Your task to perform on an android device: open chrome and create a bookmark for the current page Image 0: 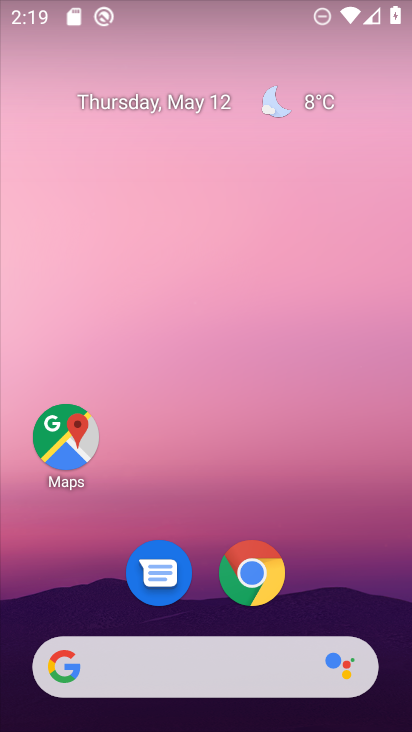
Step 0: drag from (377, 631) to (133, 80)
Your task to perform on an android device: open chrome and create a bookmark for the current page Image 1: 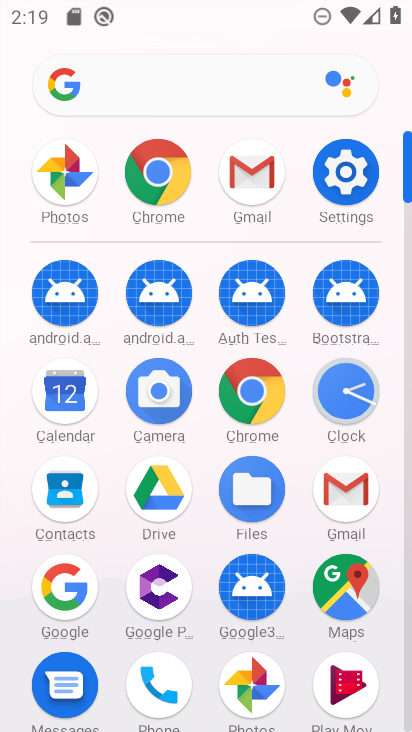
Step 1: click (263, 399)
Your task to perform on an android device: open chrome and create a bookmark for the current page Image 2: 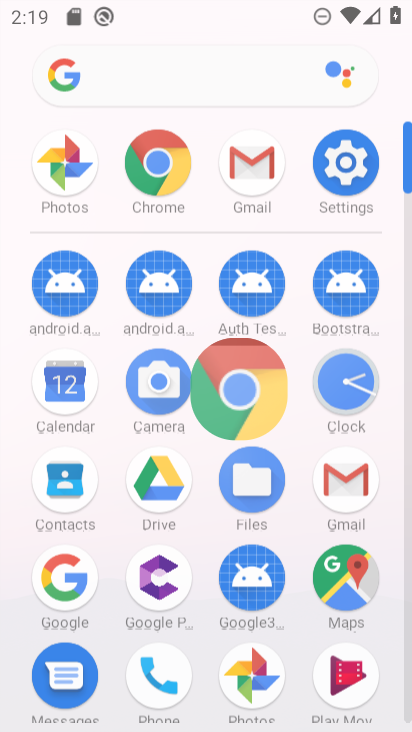
Step 2: click (222, 386)
Your task to perform on an android device: open chrome and create a bookmark for the current page Image 3: 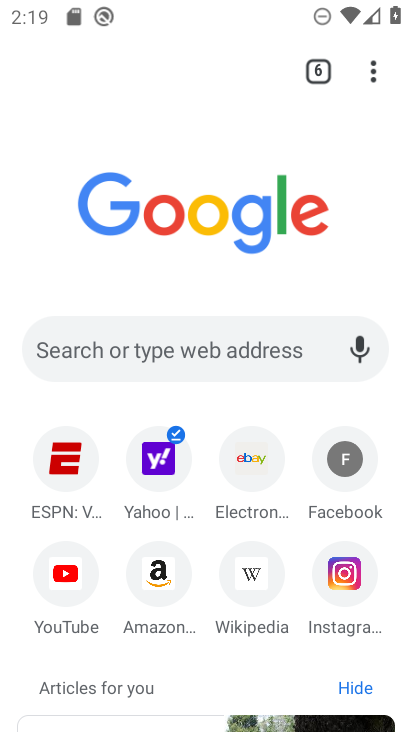
Step 3: drag from (369, 61) to (89, 262)
Your task to perform on an android device: open chrome and create a bookmark for the current page Image 4: 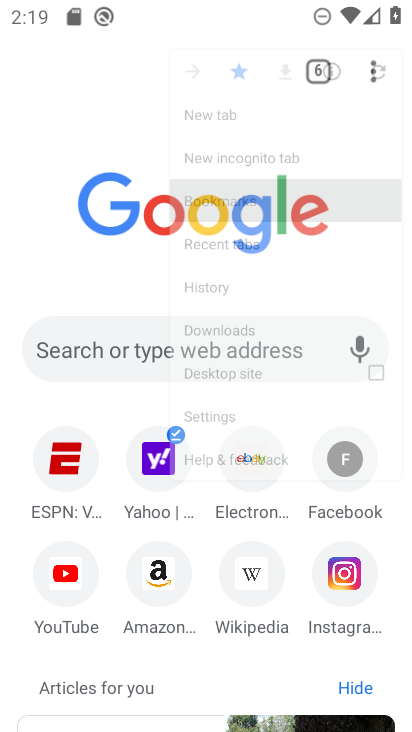
Step 4: click (82, 264)
Your task to perform on an android device: open chrome and create a bookmark for the current page Image 5: 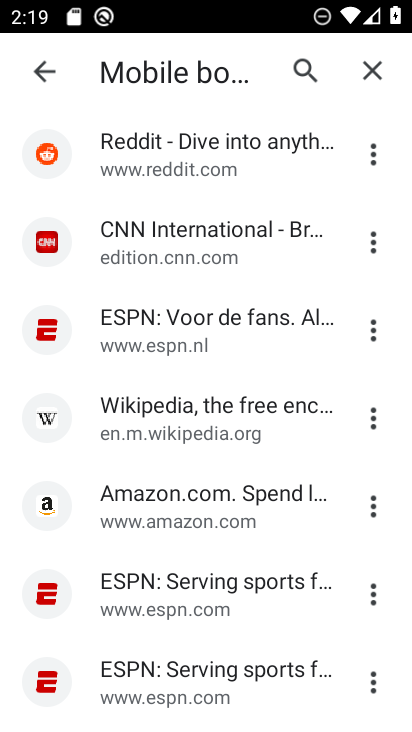
Step 5: click (38, 64)
Your task to perform on an android device: open chrome and create a bookmark for the current page Image 6: 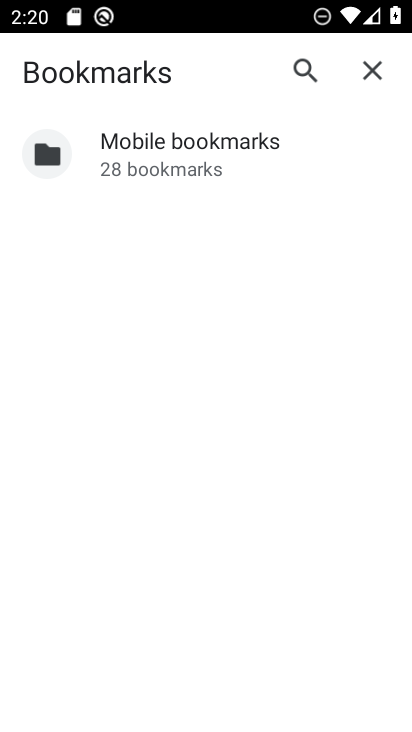
Step 6: click (366, 67)
Your task to perform on an android device: open chrome and create a bookmark for the current page Image 7: 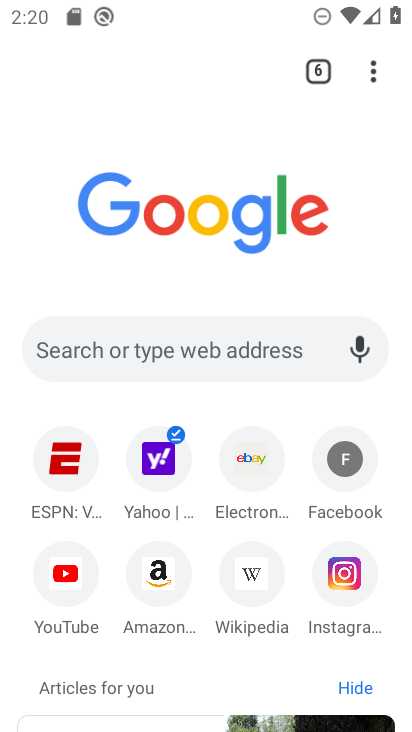
Step 7: click (88, 344)
Your task to perform on an android device: open chrome and create a bookmark for the current page Image 8: 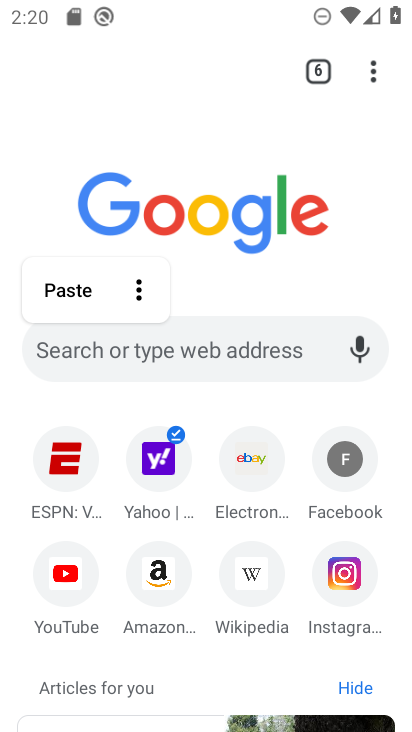
Step 8: click (56, 332)
Your task to perform on an android device: open chrome and create a bookmark for the current page Image 9: 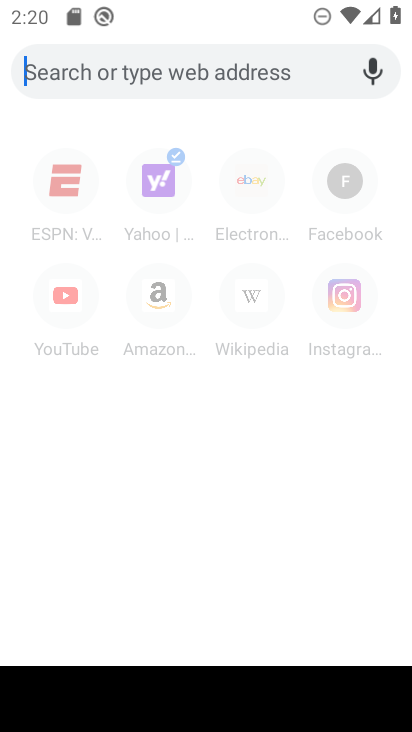
Step 9: type "www.snapdeal.com"
Your task to perform on an android device: open chrome and create a bookmark for the current page Image 10: 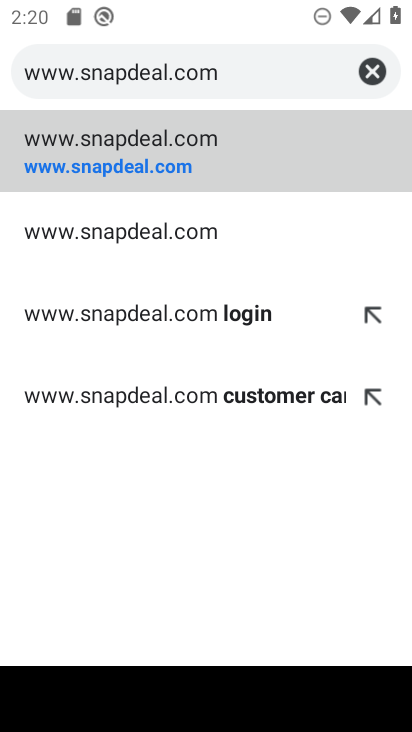
Step 10: click (123, 163)
Your task to perform on an android device: open chrome and create a bookmark for the current page Image 11: 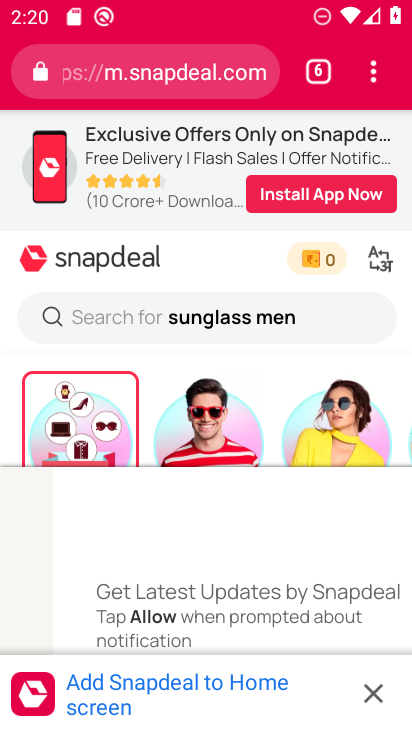
Step 11: drag from (370, 68) to (196, 270)
Your task to perform on an android device: open chrome and create a bookmark for the current page Image 12: 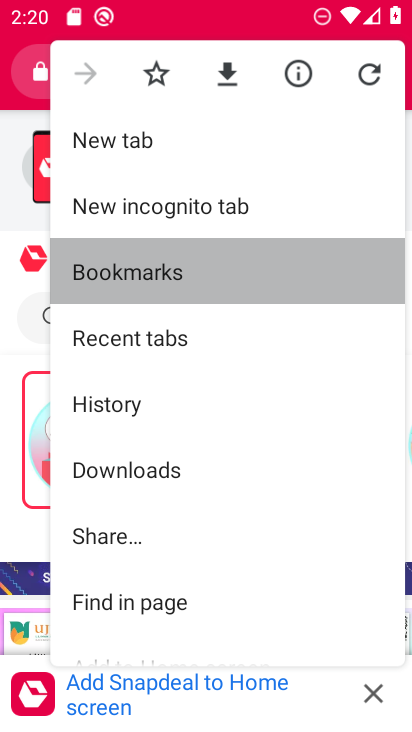
Step 12: click (189, 276)
Your task to perform on an android device: open chrome and create a bookmark for the current page Image 13: 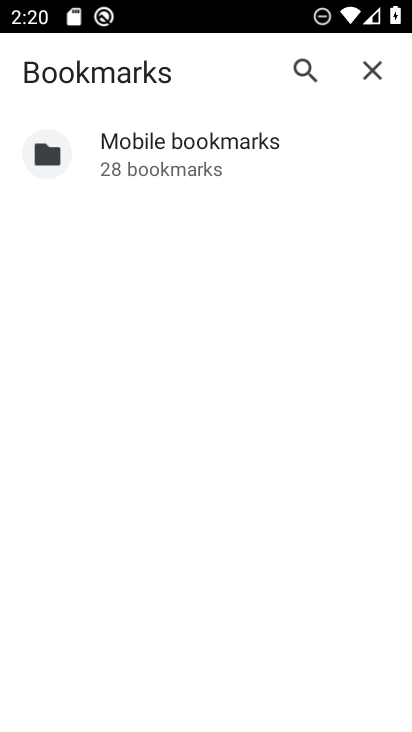
Step 13: click (372, 71)
Your task to perform on an android device: open chrome and create a bookmark for the current page Image 14: 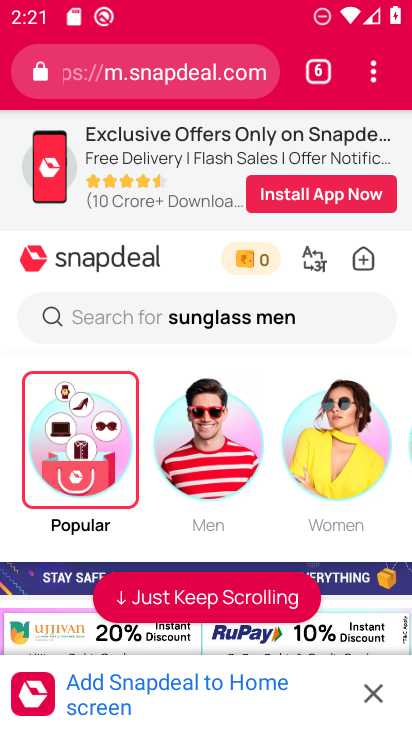
Step 14: task complete